Your task to perform on an android device: Find coffee shops on Maps Image 0: 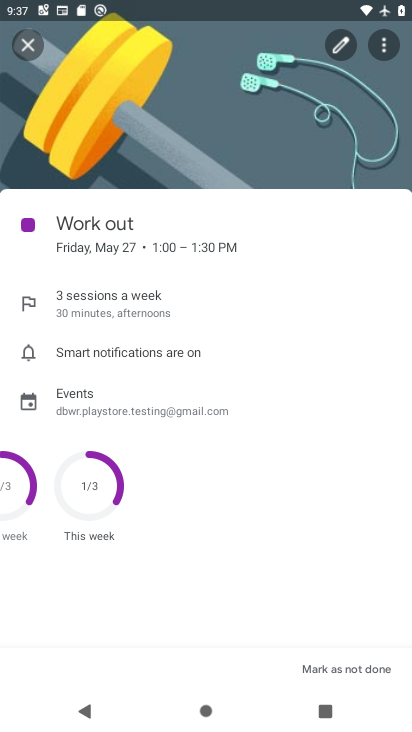
Step 0: press home button
Your task to perform on an android device: Find coffee shops on Maps Image 1: 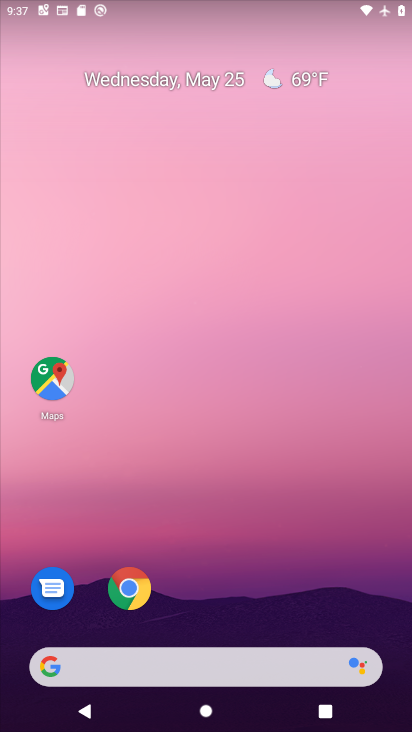
Step 1: drag from (384, 623) to (368, 142)
Your task to perform on an android device: Find coffee shops on Maps Image 2: 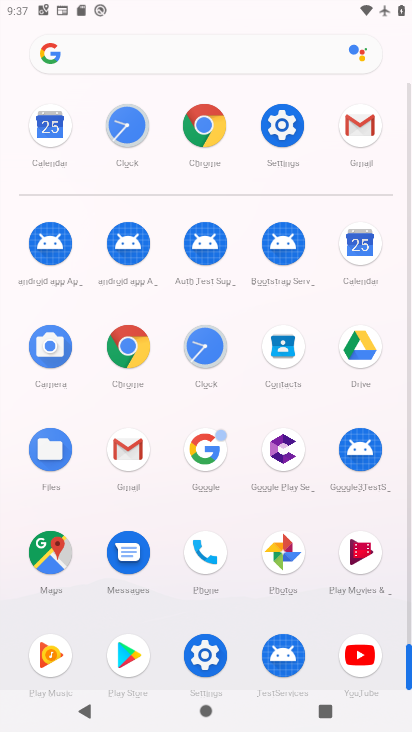
Step 2: click (58, 562)
Your task to perform on an android device: Find coffee shops on Maps Image 3: 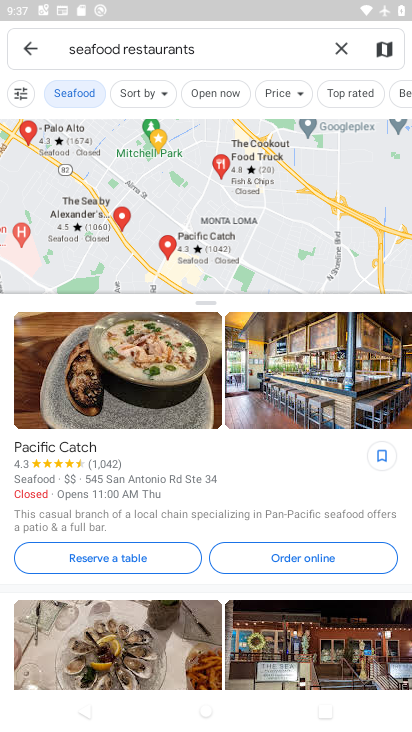
Step 3: click (338, 53)
Your task to perform on an android device: Find coffee shops on Maps Image 4: 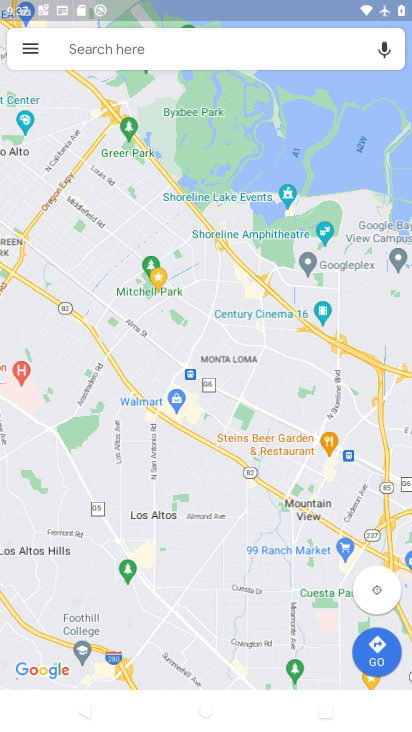
Step 4: click (302, 48)
Your task to perform on an android device: Find coffee shops on Maps Image 5: 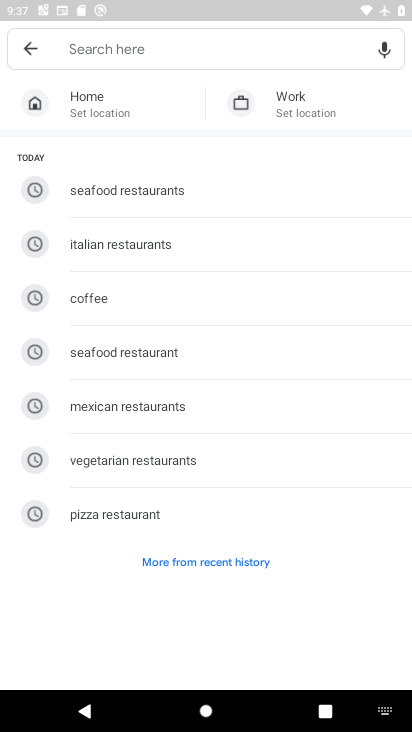
Step 5: type "coffee"
Your task to perform on an android device: Find coffee shops on Maps Image 6: 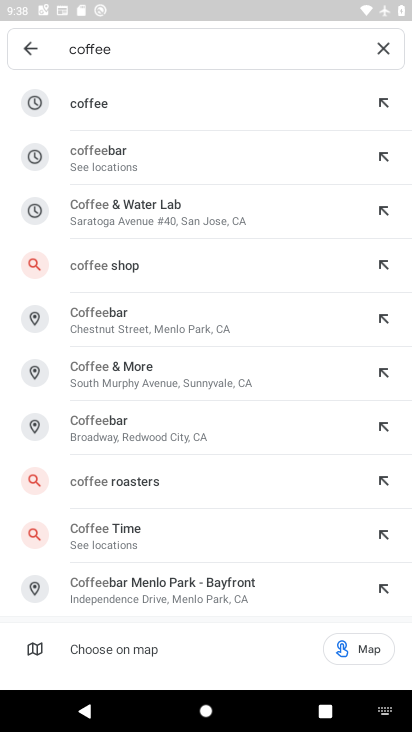
Step 6: click (174, 111)
Your task to perform on an android device: Find coffee shops on Maps Image 7: 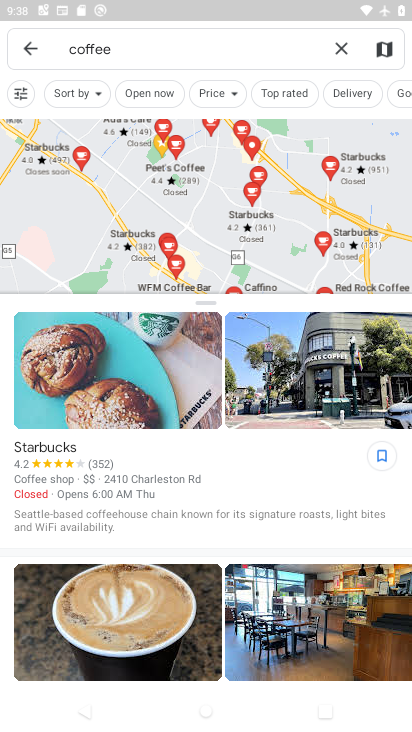
Step 7: task complete